Your task to perform on an android device: turn on improve location accuracy Image 0: 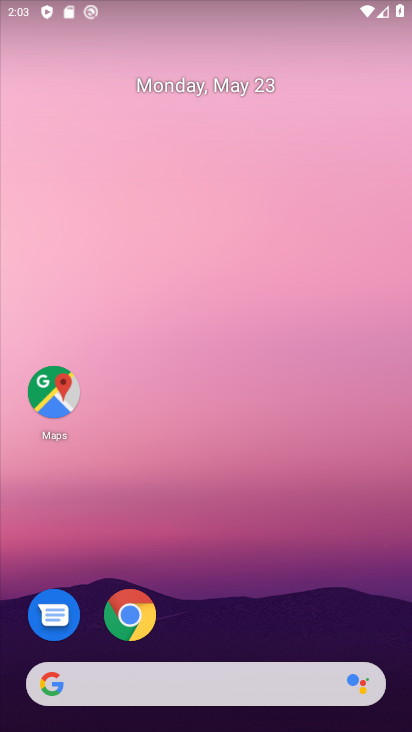
Step 0: drag from (242, 619) to (244, 127)
Your task to perform on an android device: turn on improve location accuracy Image 1: 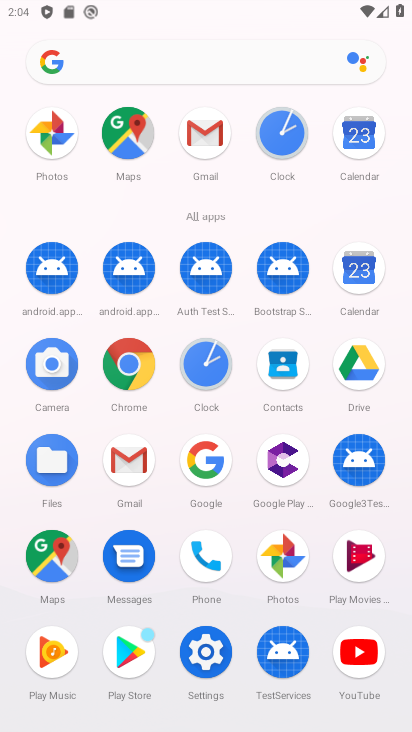
Step 1: click (124, 663)
Your task to perform on an android device: turn on improve location accuracy Image 2: 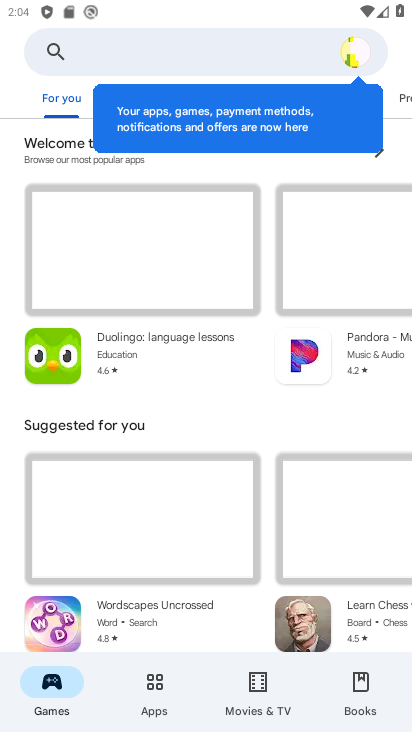
Step 2: press home button
Your task to perform on an android device: turn on improve location accuracy Image 3: 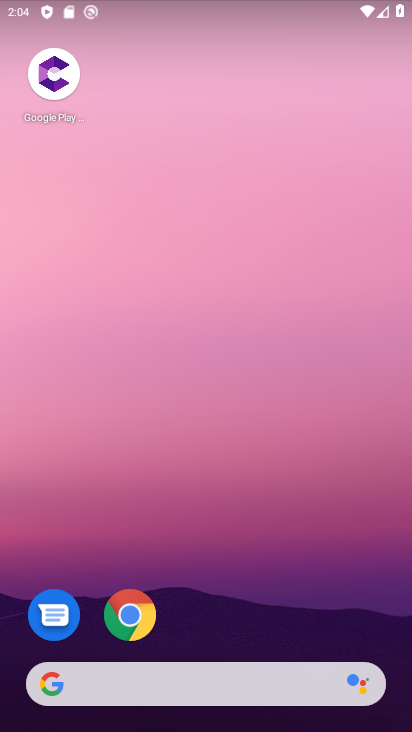
Step 3: drag from (205, 628) to (242, 33)
Your task to perform on an android device: turn on improve location accuracy Image 4: 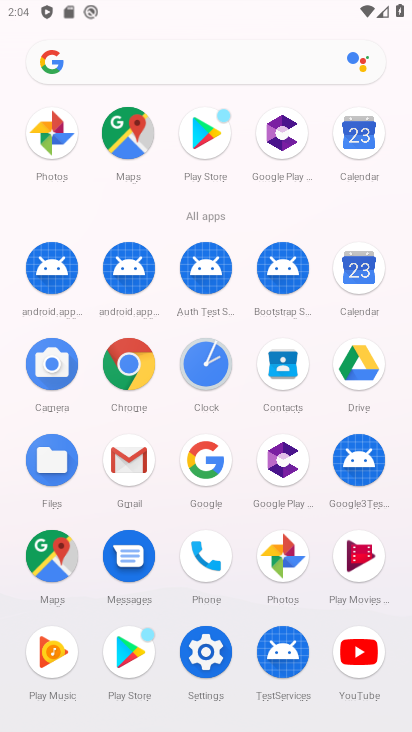
Step 4: click (214, 665)
Your task to perform on an android device: turn on improve location accuracy Image 5: 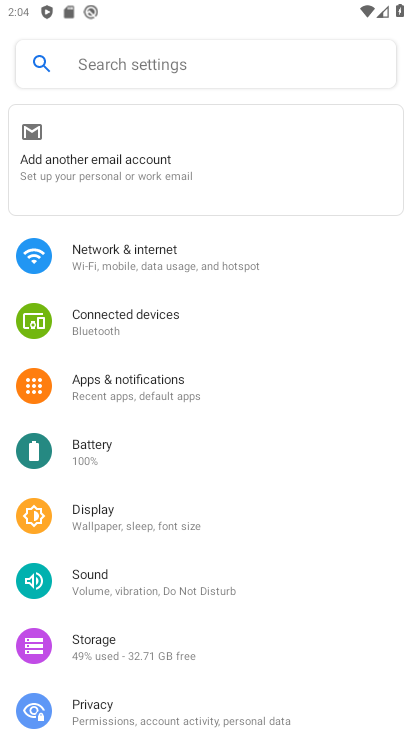
Step 5: drag from (173, 629) to (188, 373)
Your task to perform on an android device: turn on improve location accuracy Image 6: 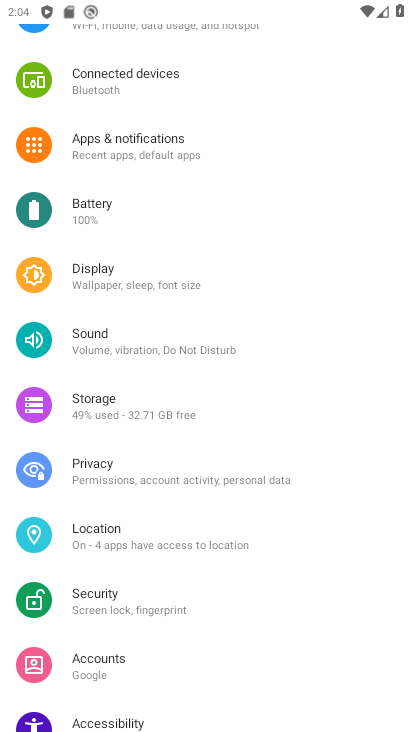
Step 6: click (160, 551)
Your task to perform on an android device: turn on improve location accuracy Image 7: 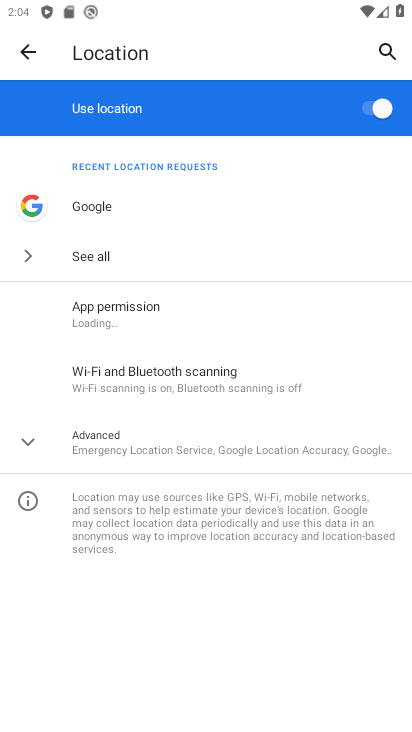
Step 7: click (156, 452)
Your task to perform on an android device: turn on improve location accuracy Image 8: 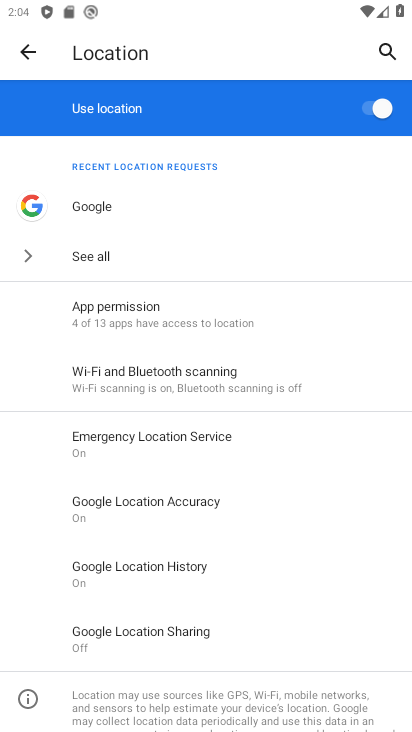
Step 8: click (193, 498)
Your task to perform on an android device: turn on improve location accuracy Image 9: 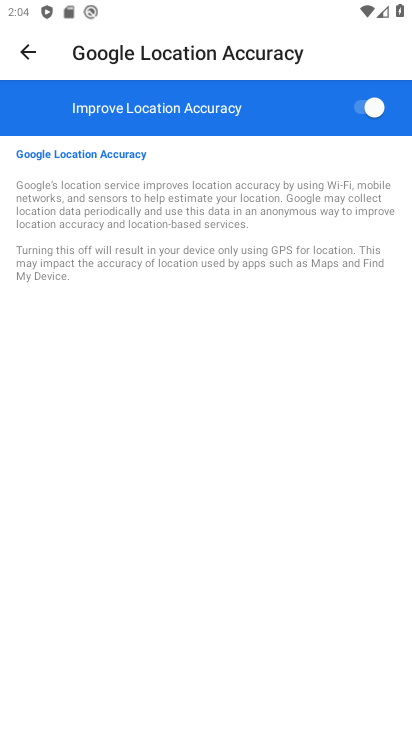
Step 9: task complete